Your task to perform on an android device: What's the weather going to be this weekend? Image 0: 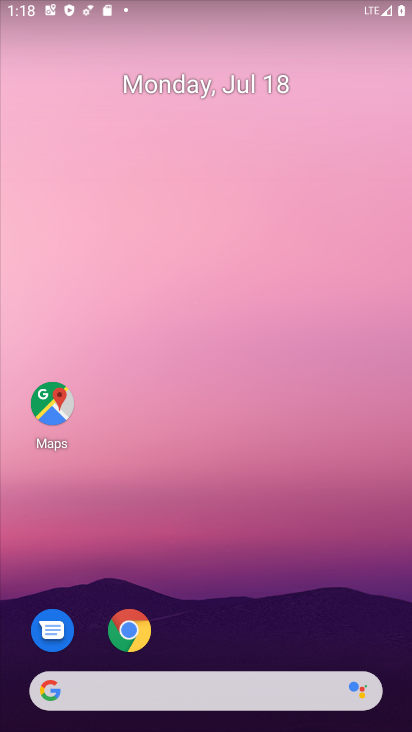
Step 0: click (211, 693)
Your task to perform on an android device: What's the weather going to be this weekend? Image 1: 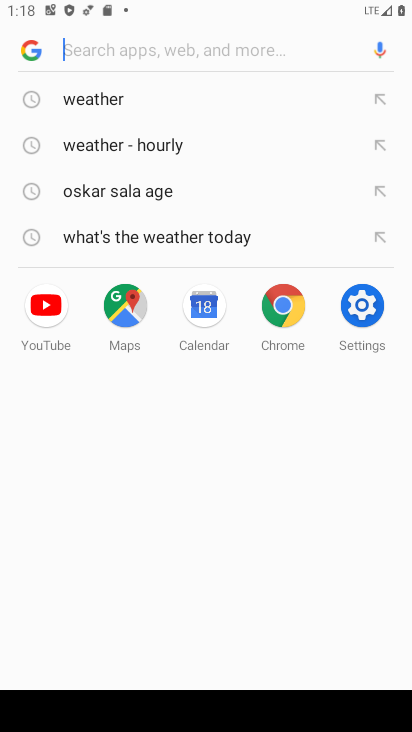
Step 1: click (90, 91)
Your task to perform on an android device: What's the weather going to be this weekend? Image 2: 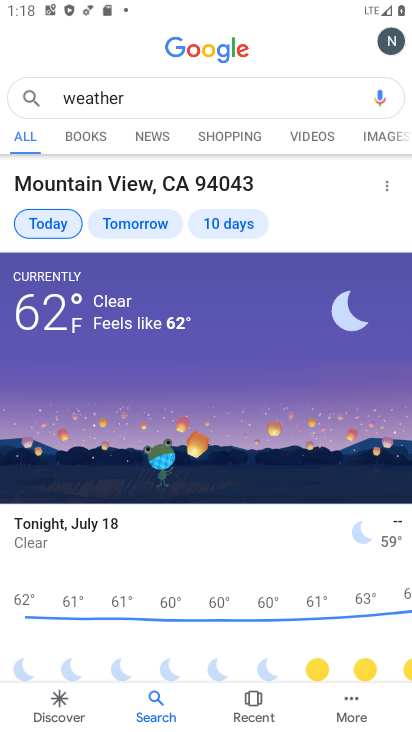
Step 2: click (54, 221)
Your task to perform on an android device: What's the weather going to be this weekend? Image 3: 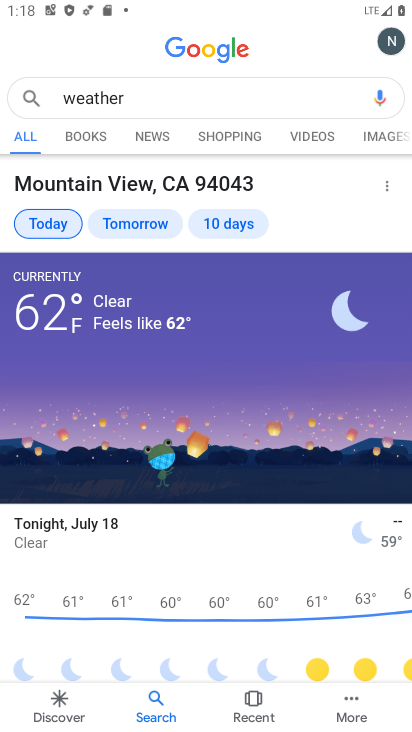
Step 3: click (54, 219)
Your task to perform on an android device: What's the weather going to be this weekend? Image 4: 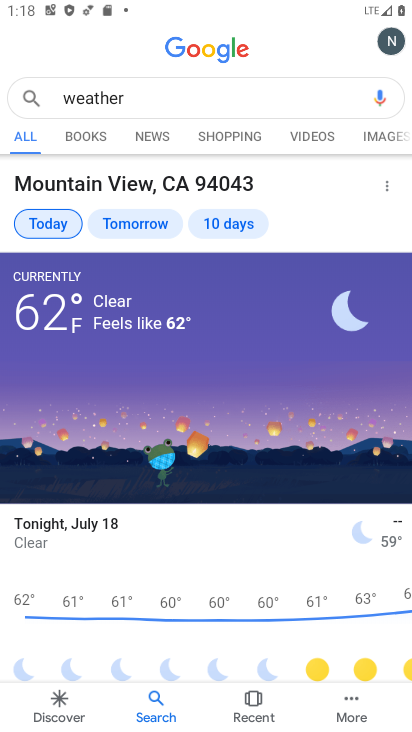
Step 4: click (230, 221)
Your task to perform on an android device: What's the weather going to be this weekend? Image 5: 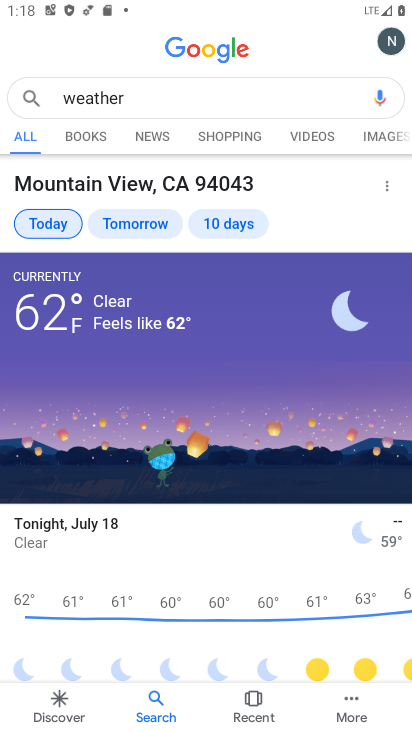
Step 5: click (232, 218)
Your task to perform on an android device: What's the weather going to be this weekend? Image 6: 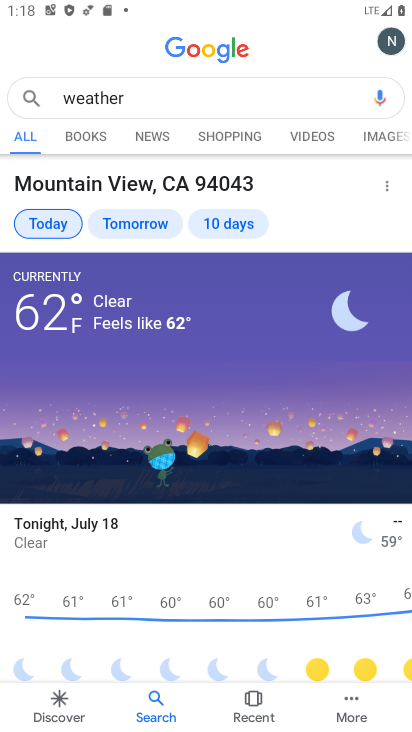
Step 6: click (382, 183)
Your task to perform on an android device: What's the weather going to be this weekend? Image 7: 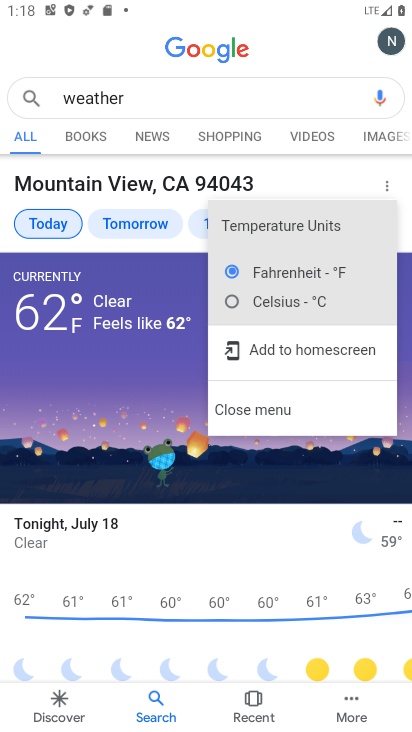
Step 7: click (382, 183)
Your task to perform on an android device: What's the weather going to be this weekend? Image 8: 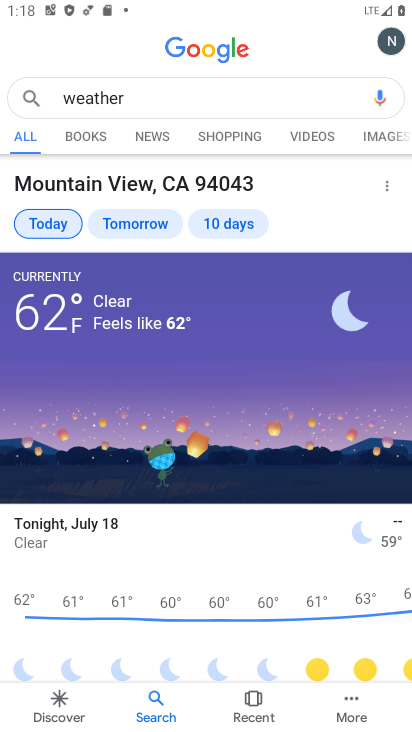
Step 8: click (382, 180)
Your task to perform on an android device: What's the weather going to be this weekend? Image 9: 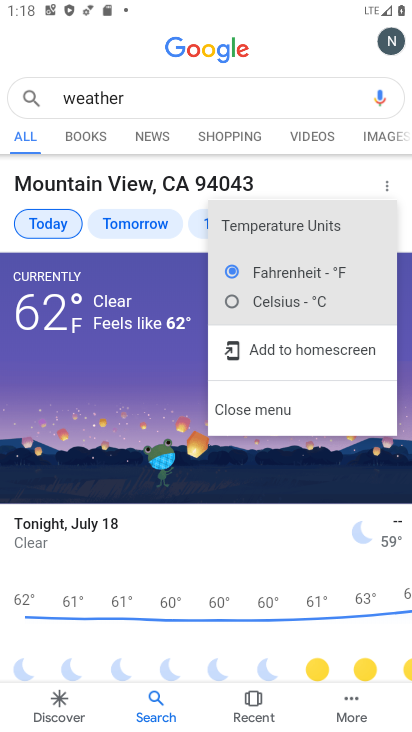
Step 9: click (231, 302)
Your task to perform on an android device: What's the weather going to be this weekend? Image 10: 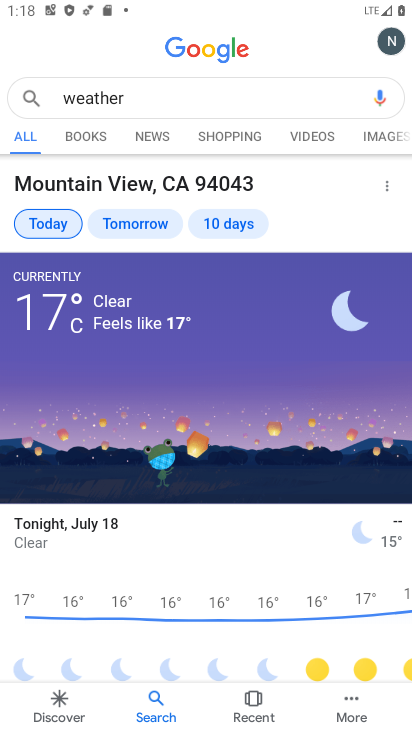
Step 10: click (156, 222)
Your task to perform on an android device: What's the weather going to be this weekend? Image 11: 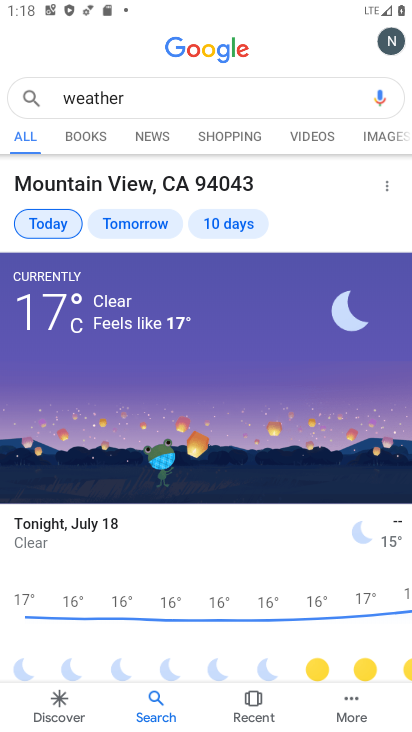
Step 11: click (156, 221)
Your task to perform on an android device: What's the weather going to be this weekend? Image 12: 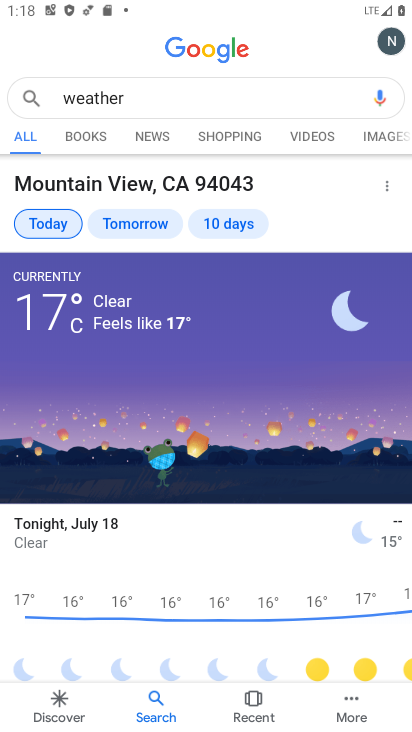
Step 12: click (121, 306)
Your task to perform on an android device: What's the weather going to be this weekend? Image 13: 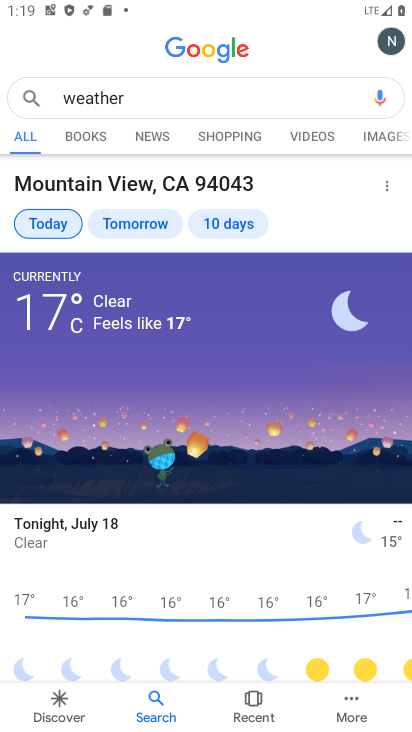
Step 13: click (149, 222)
Your task to perform on an android device: What's the weather going to be this weekend? Image 14: 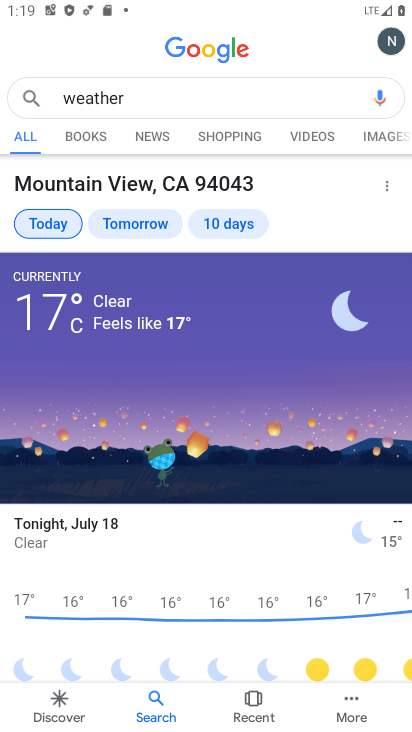
Step 14: click (228, 217)
Your task to perform on an android device: What's the weather going to be this weekend? Image 15: 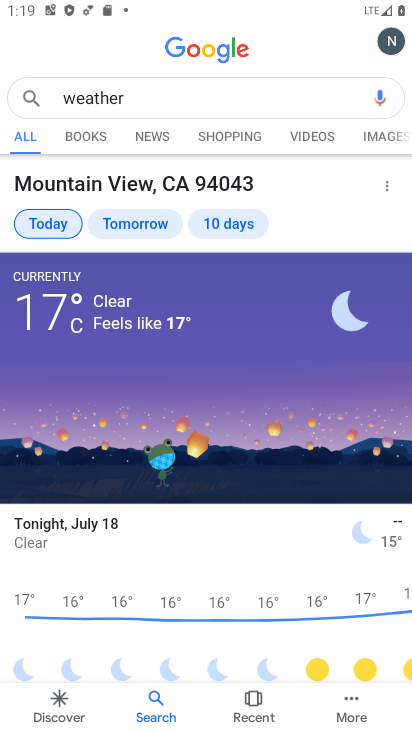
Step 15: drag from (274, 418) to (269, 309)
Your task to perform on an android device: What's the weather going to be this weekend? Image 16: 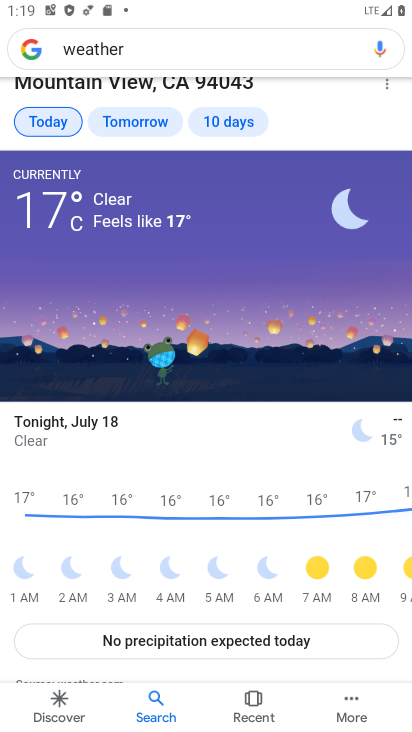
Step 16: drag from (355, 303) to (0, 343)
Your task to perform on an android device: What's the weather going to be this weekend? Image 17: 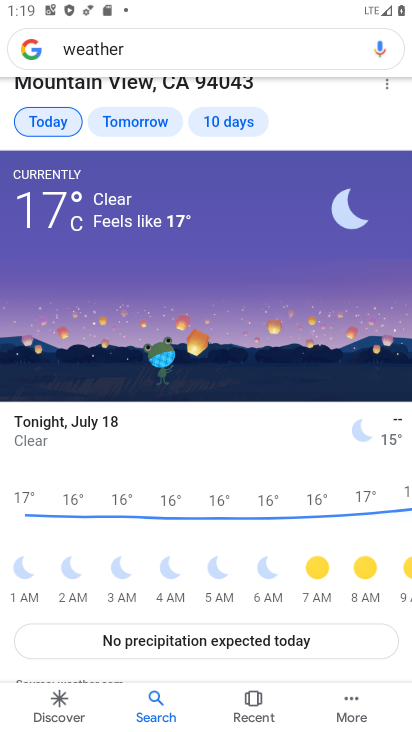
Step 17: drag from (377, 561) to (32, 580)
Your task to perform on an android device: What's the weather going to be this weekend? Image 18: 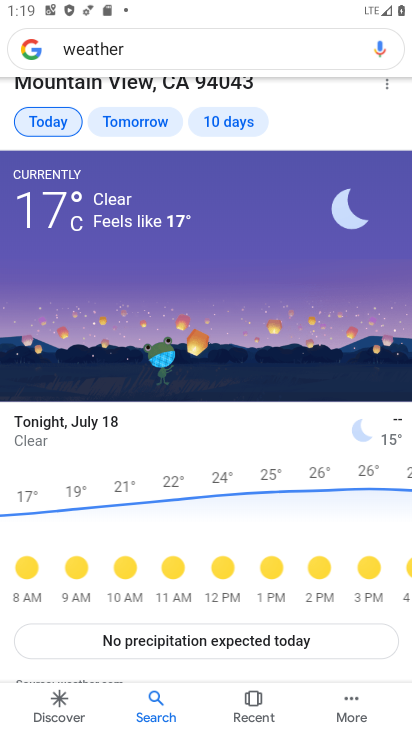
Step 18: drag from (396, 557) to (16, 559)
Your task to perform on an android device: What's the weather going to be this weekend? Image 19: 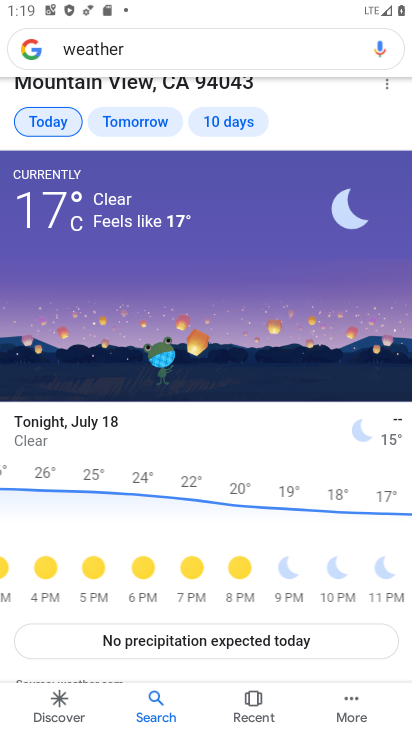
Step 19: drag from (381, 566) to (7, 534)
Your task to perform on an android device: What's the weather going to be this weekend? Image 20: 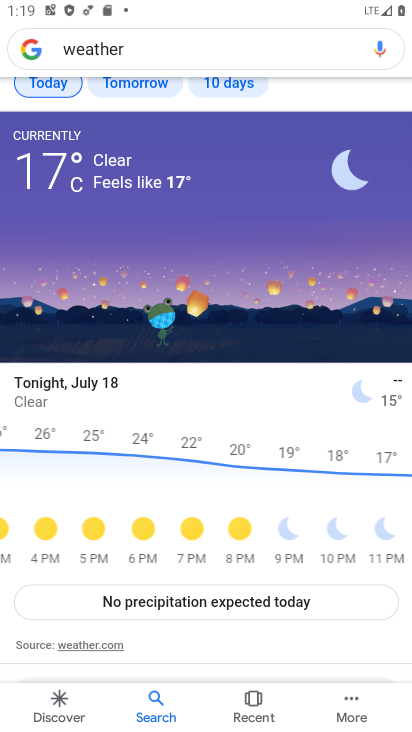
Step 20: click (63, 87)
Your task to perform on an android device: What's the weather going to be this weekend? Image 21: 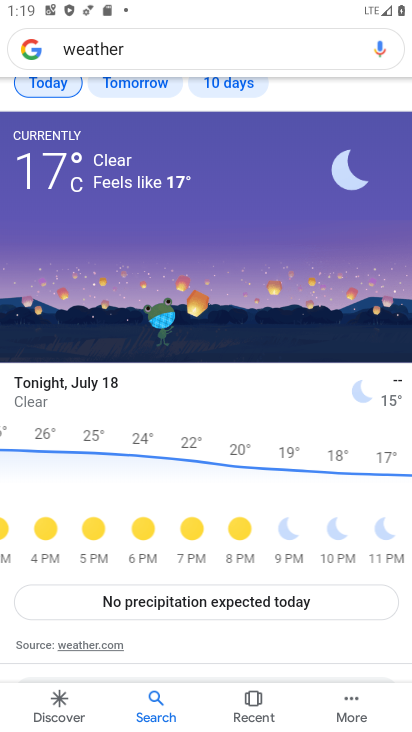
Step 21: drag from (210, 239) to (334, 550)
Your task to perform on an android device: What's the weather going to be this weekend? Image 22: 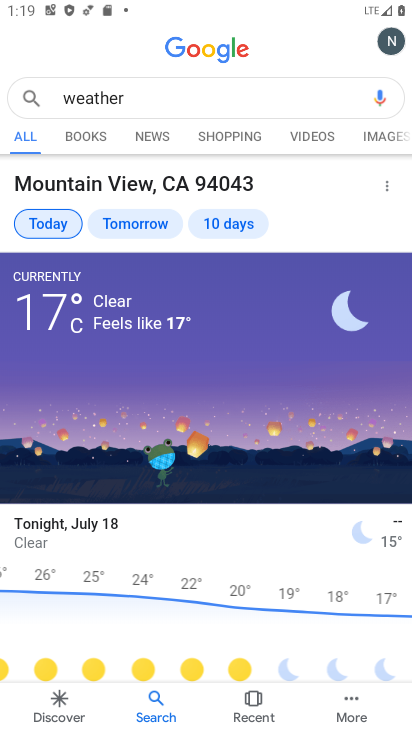
Step 22: click (40, 222)
Your task to perform on an android device: What's the weather going to be this weekend? Image 23: 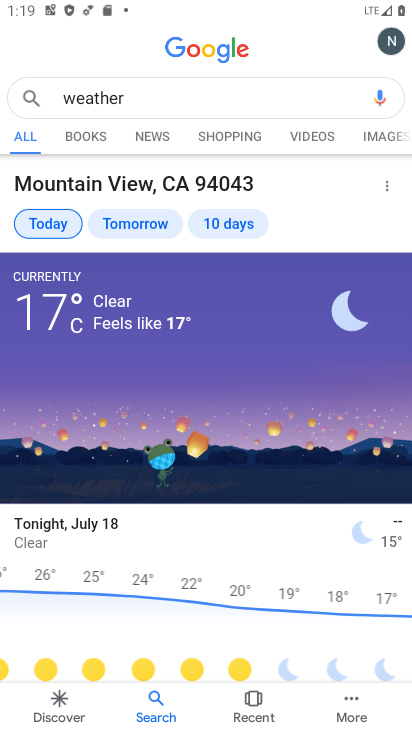
Step 23: click (58, 219)
Your task to perform on an android device: What's the weather going to be this weekend? Image 24: 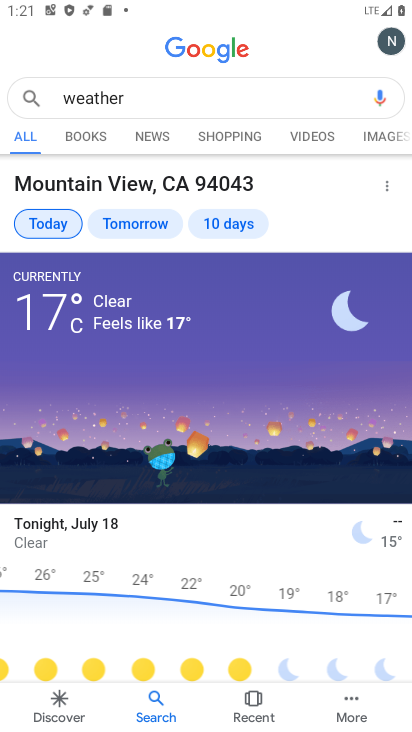
Step 24: task complete